Your task to perform on an android device: Open calendar and show me the first week of next month Image 0: 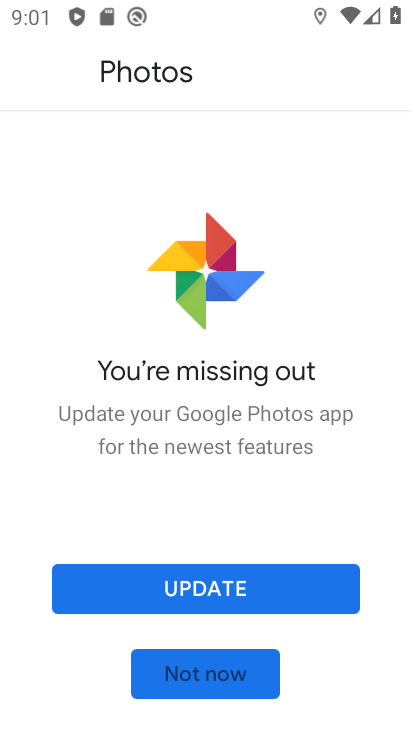
Step 0: press home button
Your task to perform on an android device: Open calendar and show me the first week of next month Image 1: 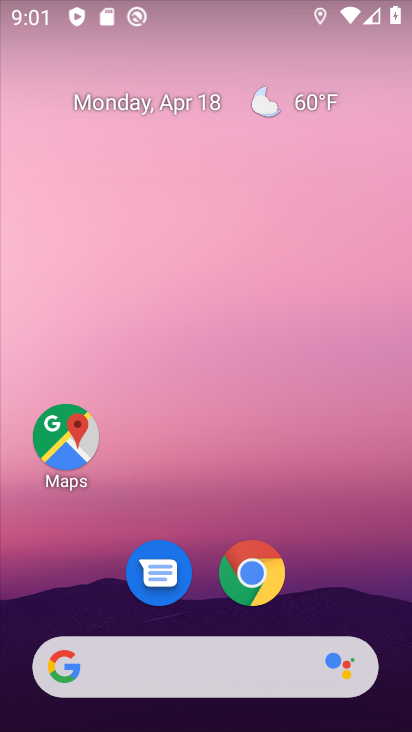
Step 1: drag from (334, 566) to (329, 87)
Your task to perform on an android device: Open calendar and show me the first week of next month Image 2: 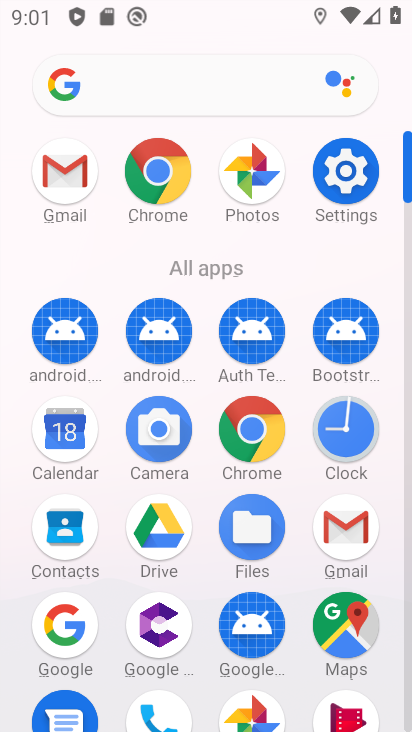
Step 2: click (70, 433)
Your task to perform on an android device: Open calendar and show me the first week of next month Image 3: 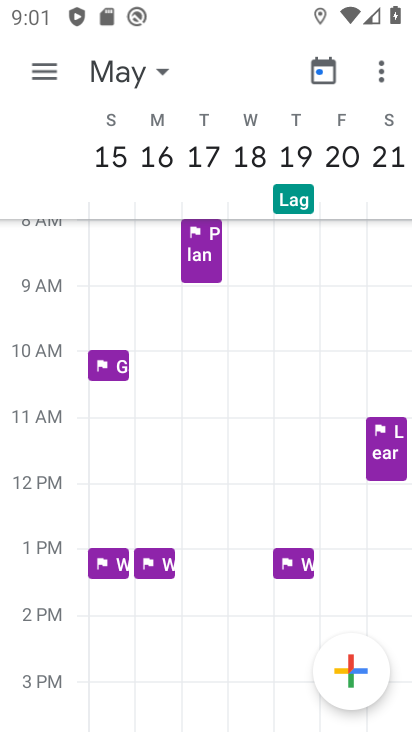
Step 3: task complete